Your task to perform on an android device: Go to Maps Image 0: 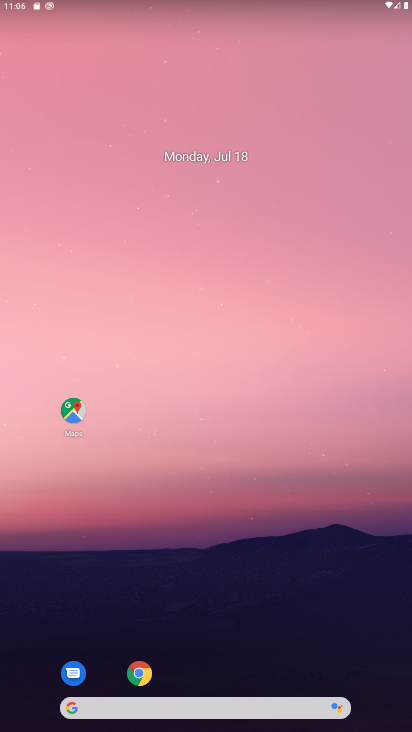
Step 0: click (64, 420)
Your task to perform on an android device: Go to Maps Image 1: 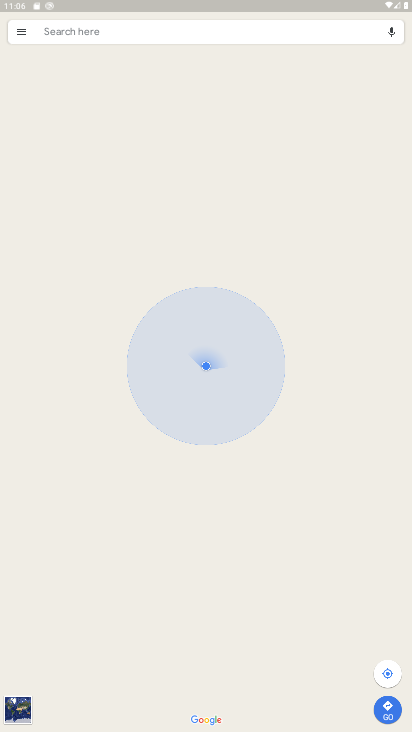
Step 1: task complete